Your task to perform on an android device: Open CNN.com Image 0: 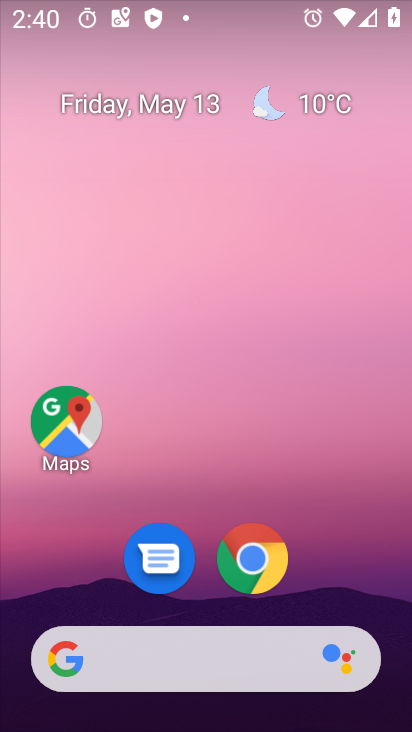
Step 0: click (239, 563)
Your task to perform on an android device: Open CNN.com Image 1: 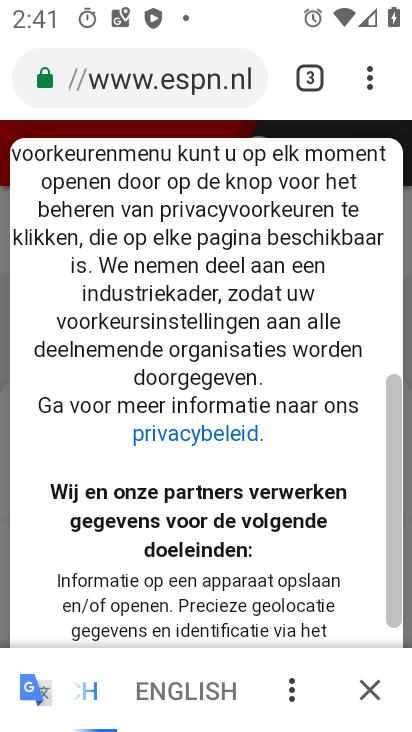
Step 1: click (310, 76)
Your task to perform on an android device: Open CNN.com Image 2: 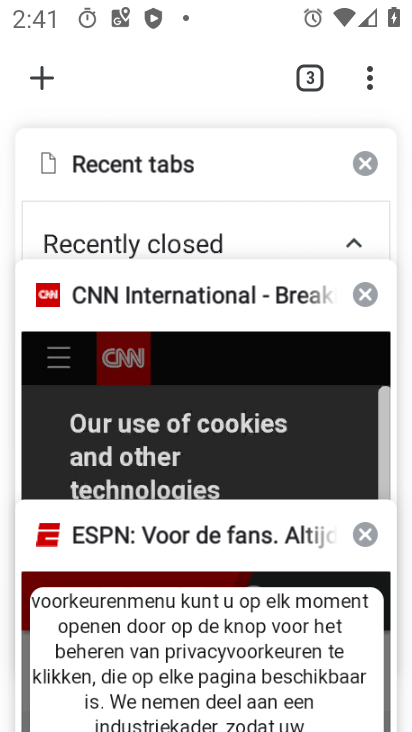
Step 2: click (139, 335)
Your task to perform on an android device: Open CNN.com Image 3: 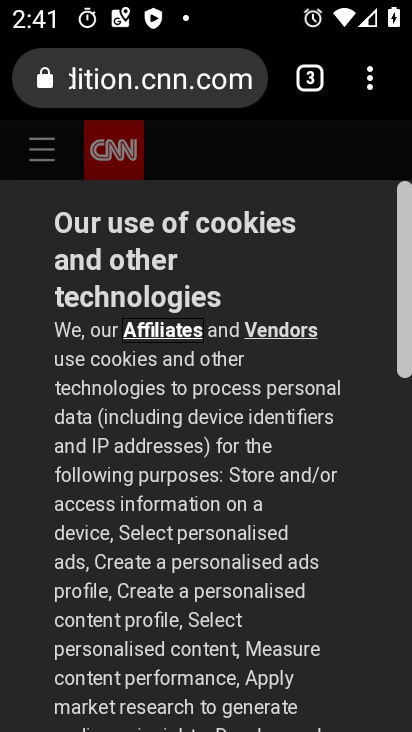
Step 3: task complete